Your task to perform on an android device: delete browsing data in the chrome app Image 0: 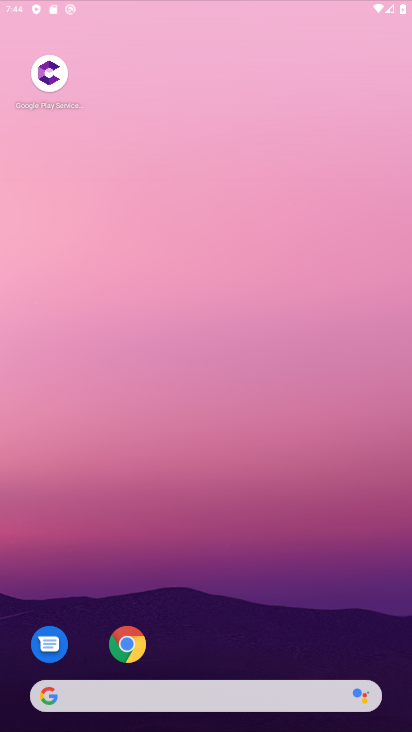
Step 0: click (236, 226)
Your task to perform on an android device: delete browsing data in the chrome app Image 1: 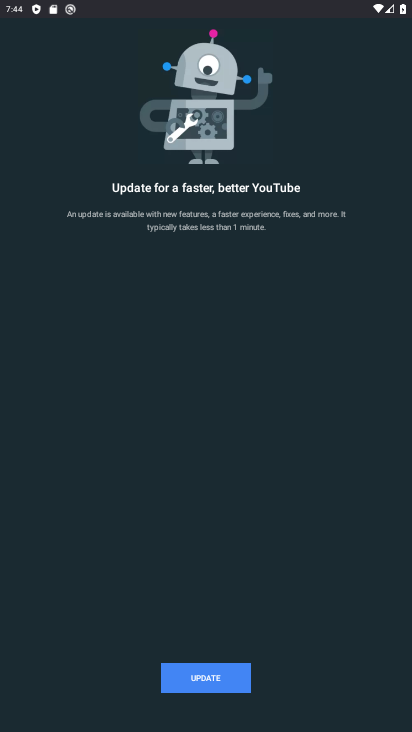
Step 1: press back button
Your task to perform on an android device: delete browsing data in the chrome app Image 2: 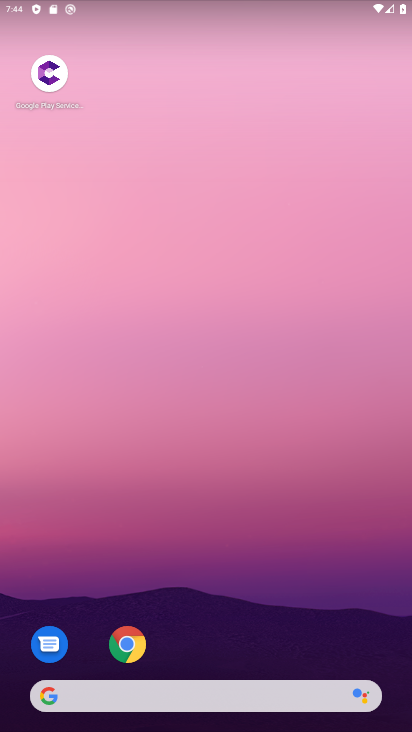
Step 2: drag from (266, 622) to (267, 187)
Your task to perform on an android device: delete browsing data in the chrome app Image 3: 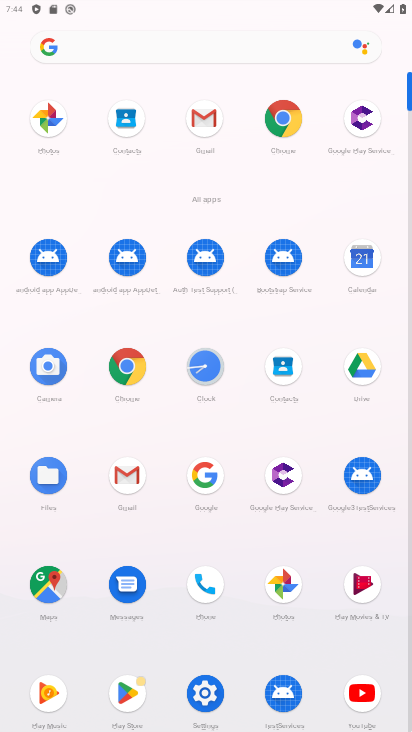
Step 3: click (289, 102)
Your task to perform on an android device: delete browsing data in the chrome app Image 4: 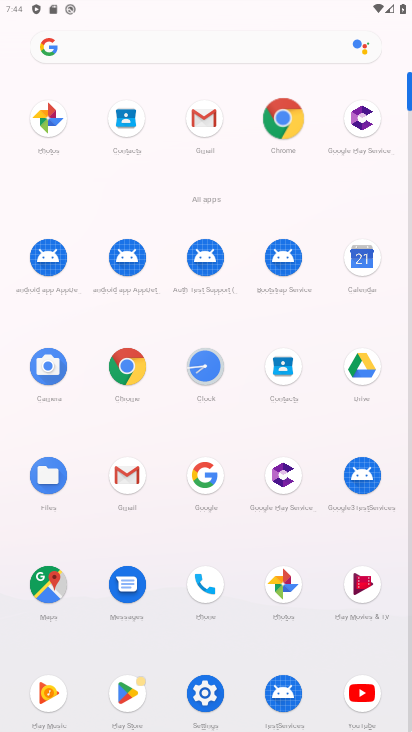
Step 4: click (287, 104)
Your task to perform on an android device: delete browsing data in the chrome app Image 5: 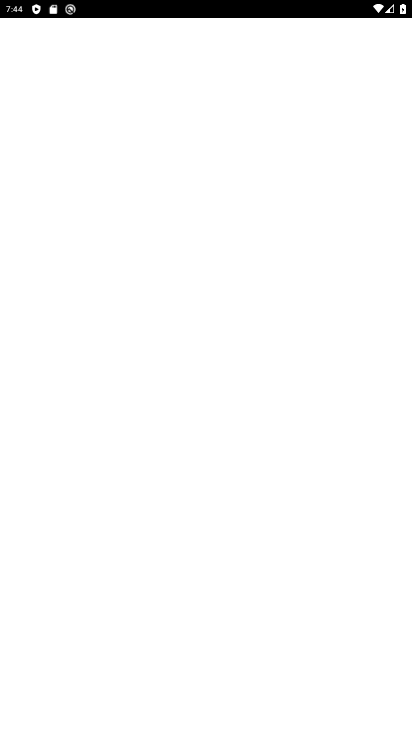
Step 5: click (288, 106)
Your task to perform on an android device: delete browsing data in the chrome app Image 6: 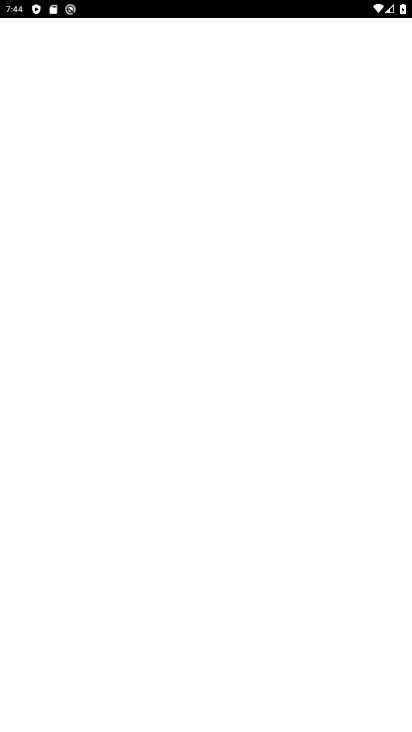
Step 6: click (288, 106)
Your task to perform on an android device: delete browsing data in the chrome app Image 7: 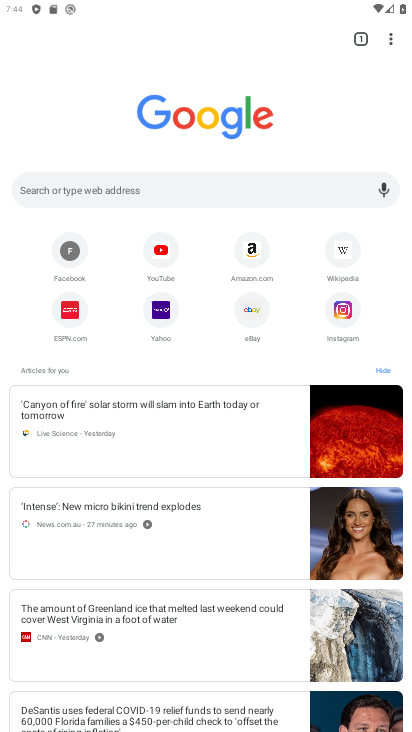
Step 7: drag from (390, 35) to (239, 219)
Your task to perform on an android device: delete browsing data in the chrome app Image 8: 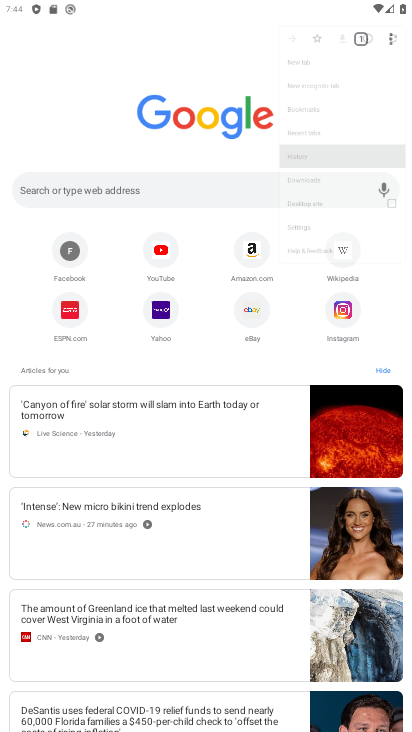
Step 8: click (239, 218)
Your task to perform on an android device: delete browsing data in the chrome app Image 9: 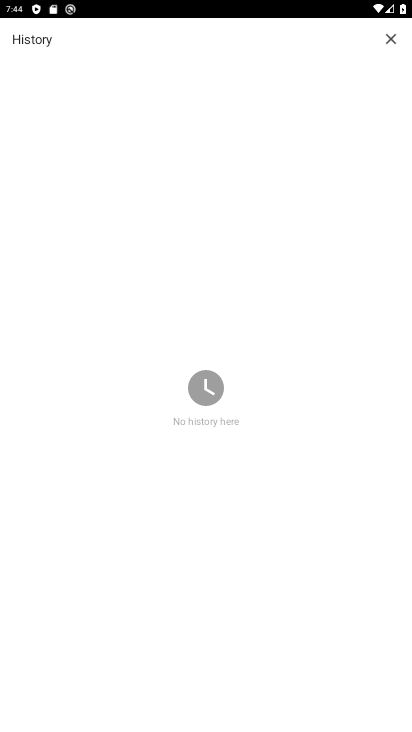
Step 9: task complete